Your task to perform on an android device: turn notification dots on Image 0: 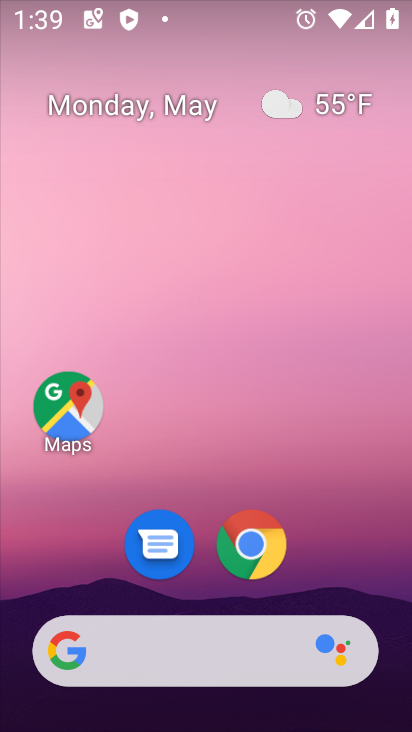
Step 0: drag from (400, 638) to (372, 148)
Your task to perform on an android device: turn notification dots on Image 1: 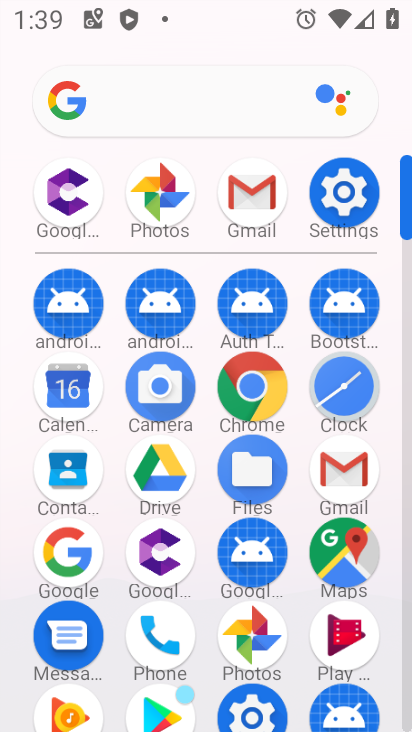
Step 1: click (408, 704)
Your task to perform on an android device: turn notification dots on Image 2: 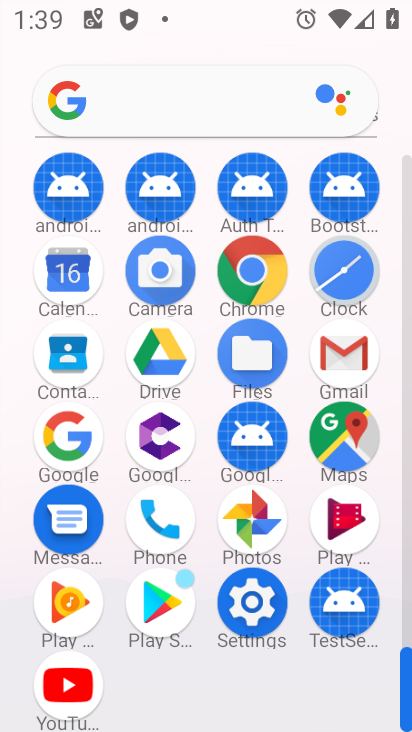
Step 2: click (252, 602)
Your task to perform on an android device: turn notification dots on Image 3: 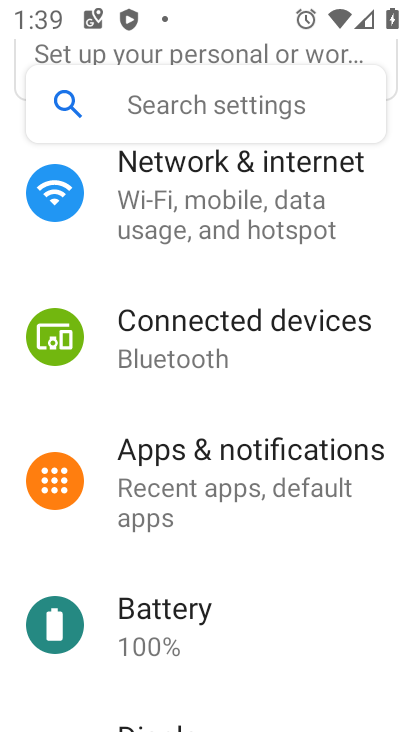
Step 3: click (175, 449)
Your task to perform on an android device: turn notification dots on Image 4: 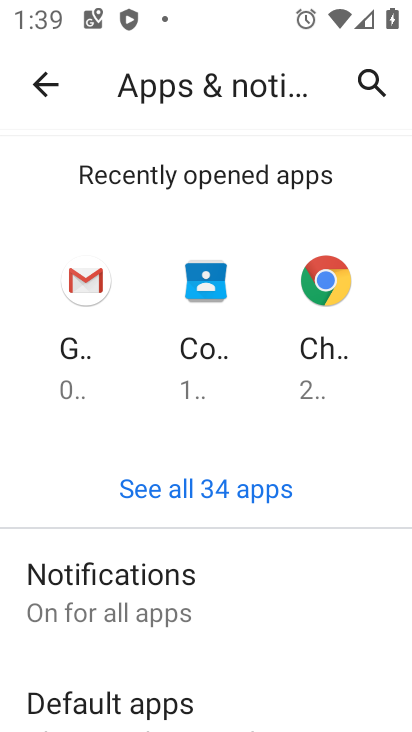
Step 4: click (121, 592)
Your task to perform on an android device: turn notification dots on Image 5: 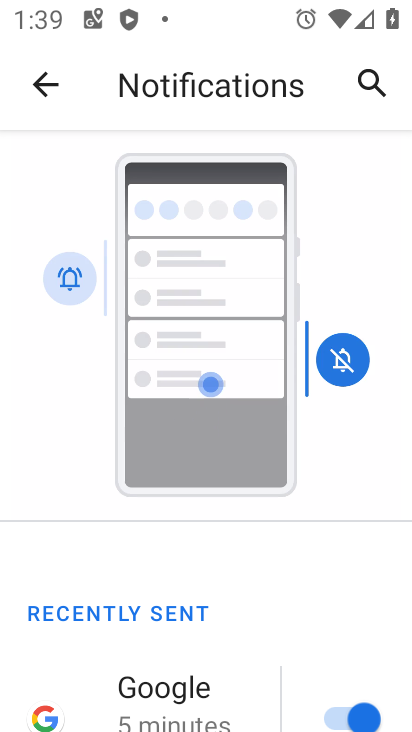
Step 5: drag from (278, 673) to (248, 149)
Your task to perform on an android device: turn notification dots on Image 6: 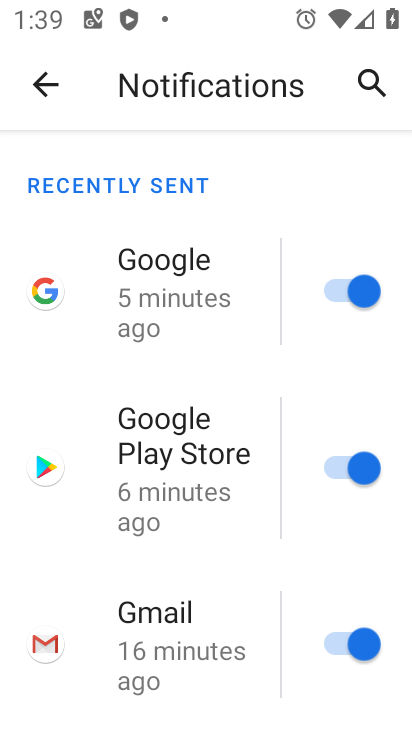
Step 6: drag from (282, 701) to (252, 147)
Your task to perform on an android device: turn notification dots on Image 7: 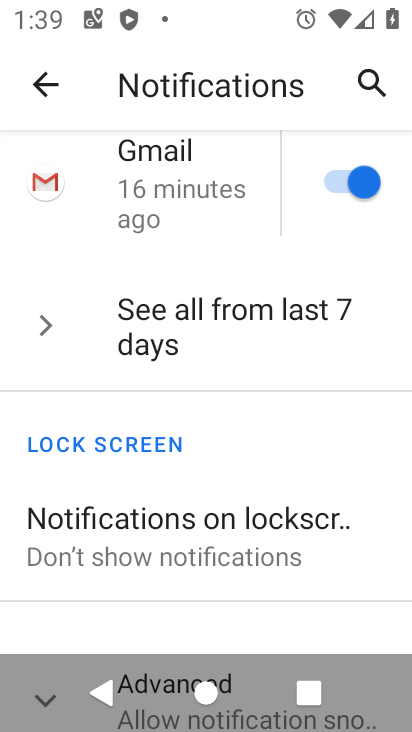
Step 7: drag from (274, 604) to (279, 251)
Your task to perform on an android device: turn notification dots on Image 8: 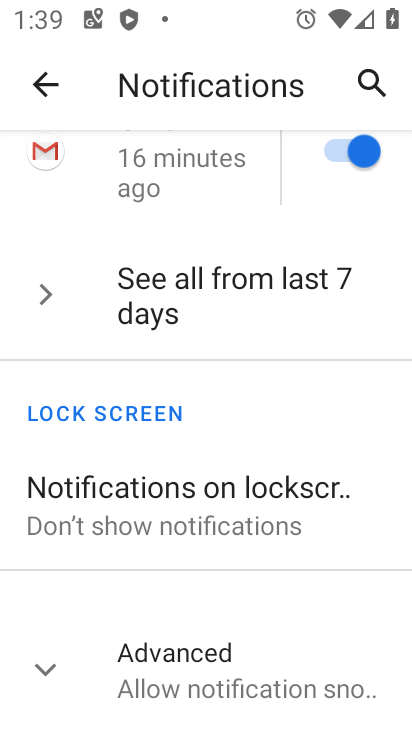
Step 8: click (40, 669)
Your task to perform on an android device: turn notification dots on Image 9: 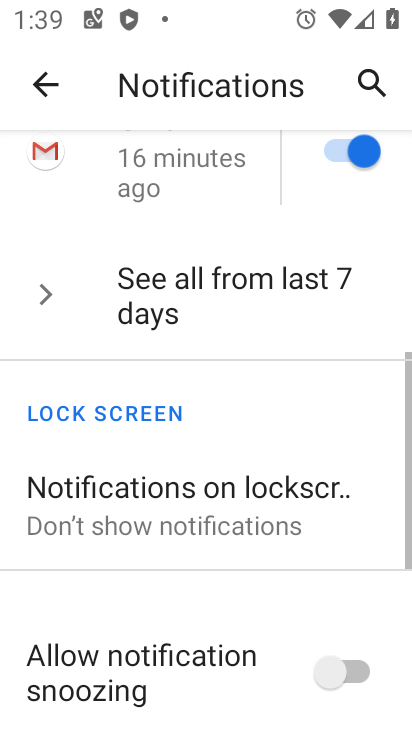
Step 9: task complete